Your task to perform on an android device: turn off javascript in the chrome app Image 0: 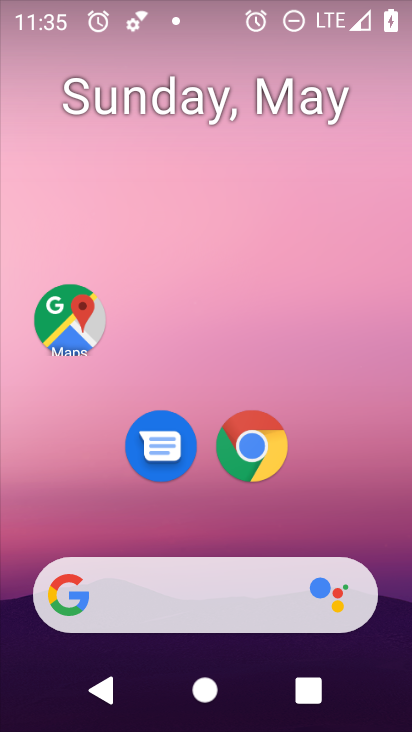
Step 0: drag from (353, 521) to (248, 31)
Your task to perform on an android device: turn off javascript in the chrome app Image 1: 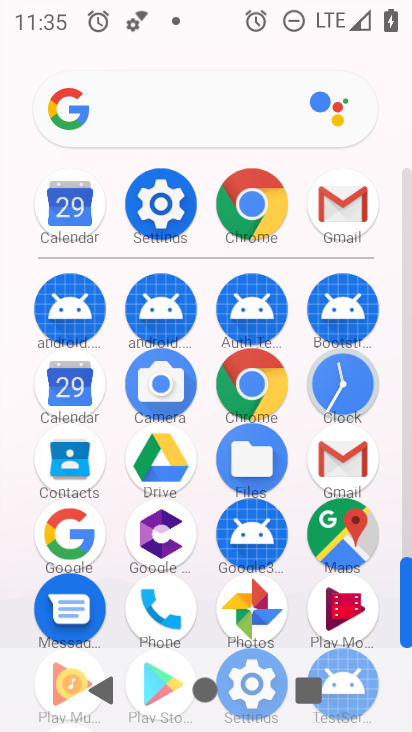
Step 1: drag from (13, 585) to (21, 286)
Your task to perform on an android device: turn off javascript in the chrome app Image 2: 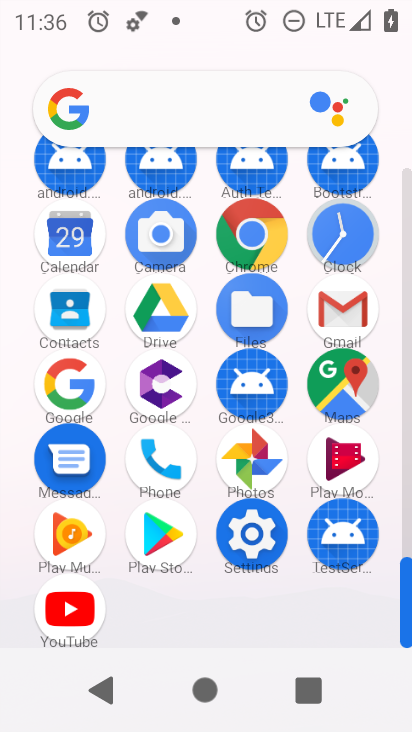
Step 2: drag from (20, 525) to (19, 205)
Your task to perform on an android device: turn off javascript in the chrome app Image 3: 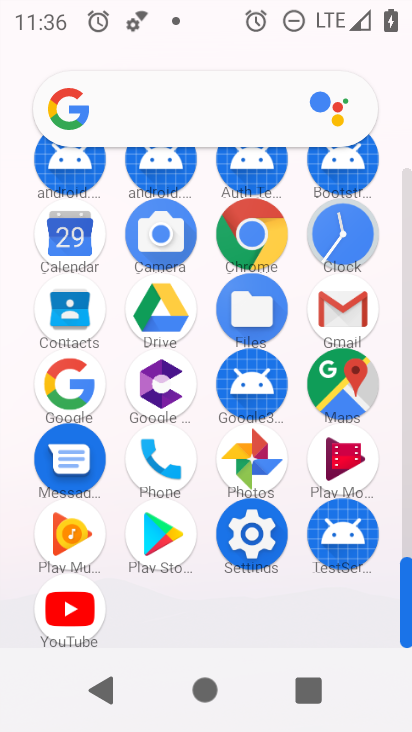
Step 3: click (252, 230)
Your task to perform on an android device: turn off javascript in the chrome app Image 4: 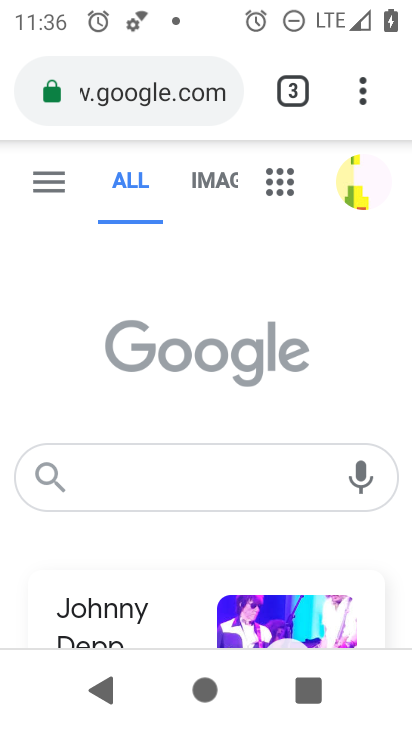
Step 4: drag from (366, 87) to (195, 465)
Your task to perform on an android device: turn off javascript in the chrome app Image 5: 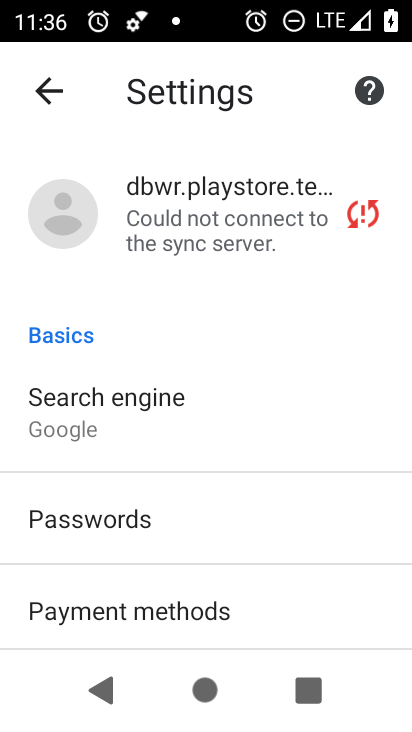
Step 5: drag from (254, 591) to (230, 166)
Your task to perform on an android device: turn off javascript in the chrome app Image 6: 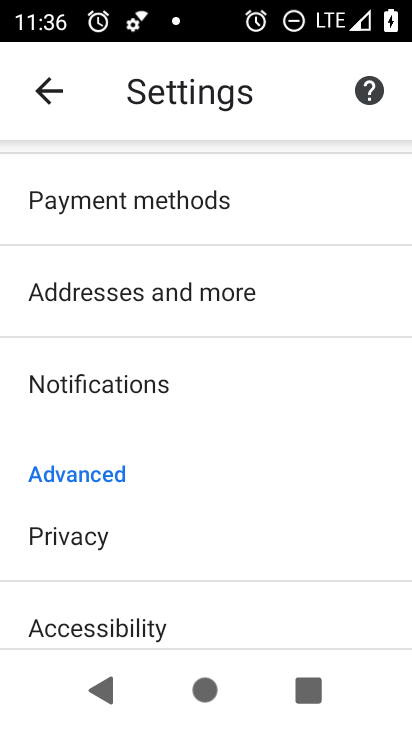
Step 6: drag from (233, 508) to (235, 161)
Your task to perform on an android device: turn off javascript in the chrome app Image 7: 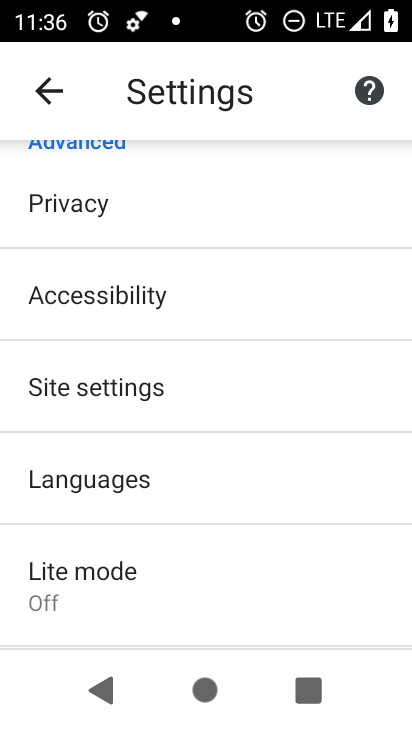
Step 7: click (180, 385)
Your task to perform on an android device: turn off javascript in the chrome app Image 8: 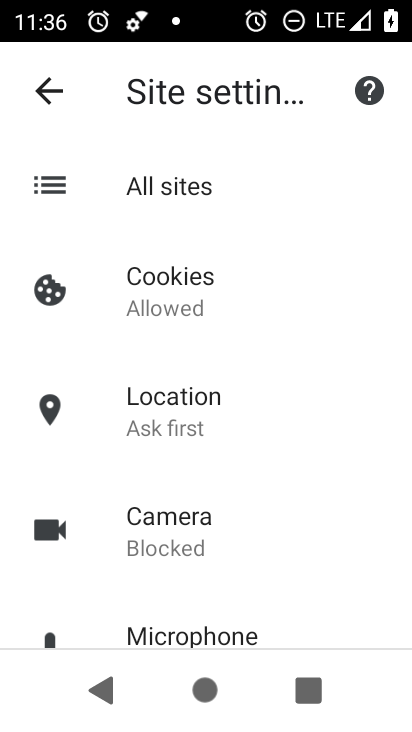
Step 8: drag from (250, 545) to (286, 173)
Your task to perform on an android device: turn off javascript in the chrome app Image 9: 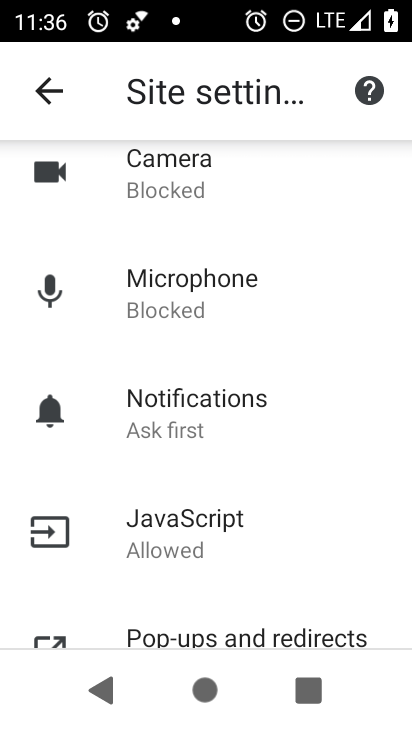
Step 9: click (234, 514)
Your task to perform on an android device: turn off javascript in the chrome app Image 10: 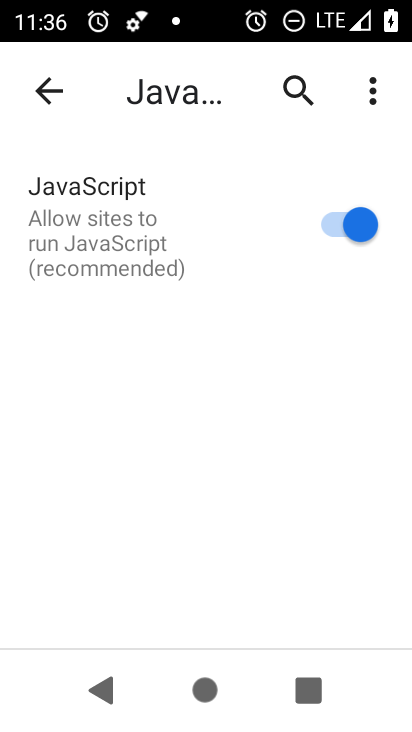
Step 10: click (345, 220)
Your task to perform on an android device: turn off javascript in the chrome app Image 11: 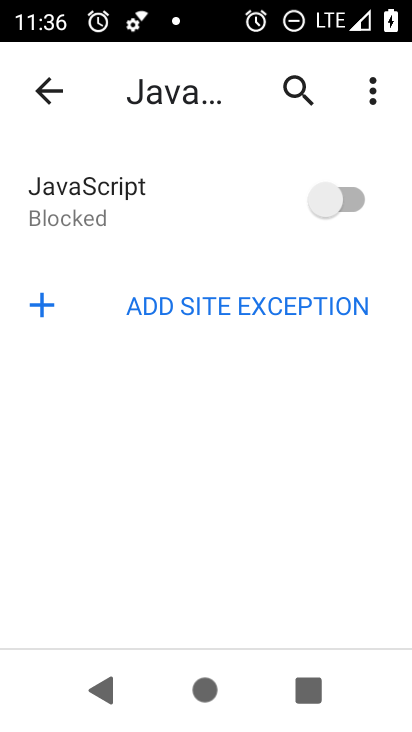
Step 11: task complete